Your task to perform on an android device: clear all cookies in the chrome app Image 0: 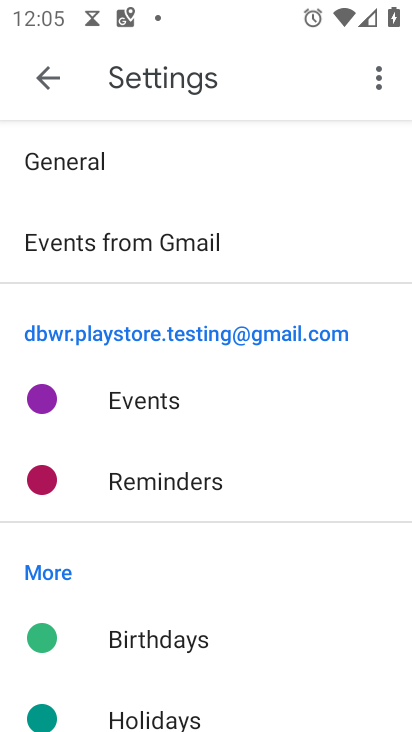
Step 0: press home button
Your task to perform on an android device: clear all cookies in the chrome app Image 1: 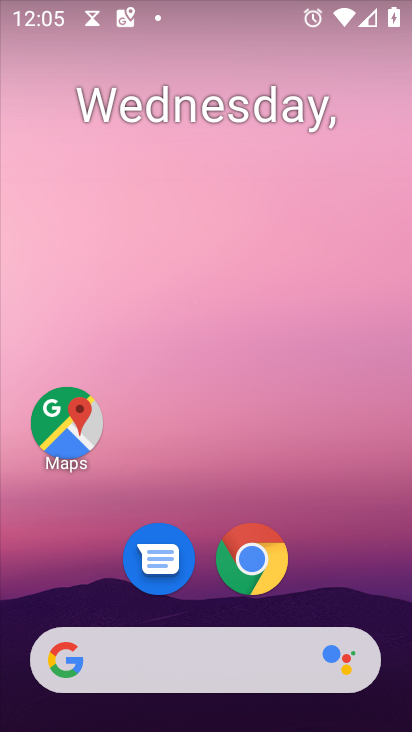
Step 1: drag from (324, 457) to (348, 69)
Your task to perform on an android device: clear all cookies in the chrome app Image 2: 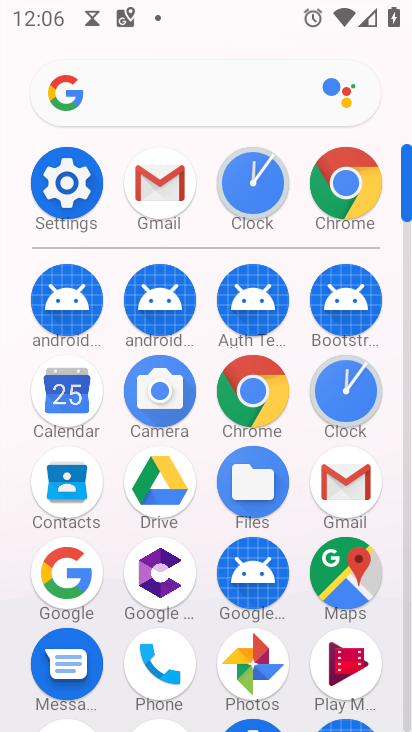
Step 2: click (350, 209)
Your task to perform on an android device: clear all cookies in the chrome app Image 3: 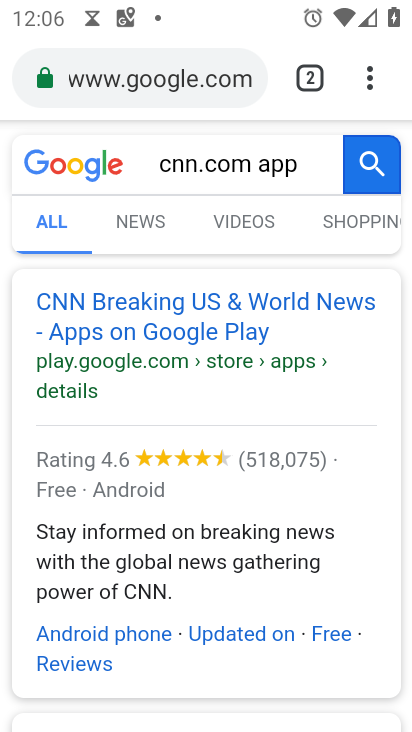
Step 3: drag from (372, 80) to (186, 609)
Your task to perform on an android device: clear all cookies in the chrome app Image 4: 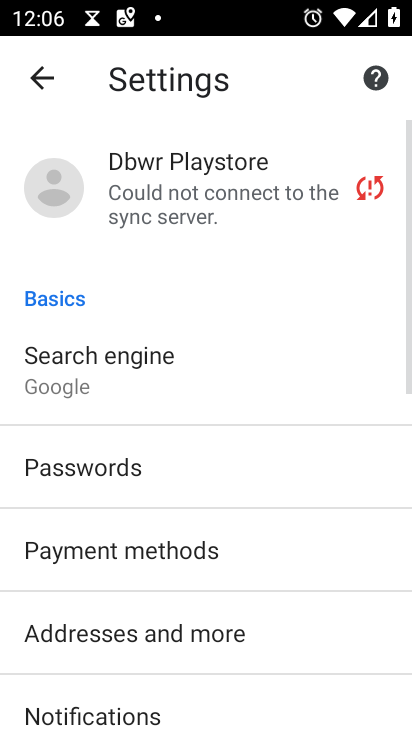
Step 4: drag from (167, 592) to (233, 303)
Your task to perform on an android device: clear all cookies in the chrome app Image 5: 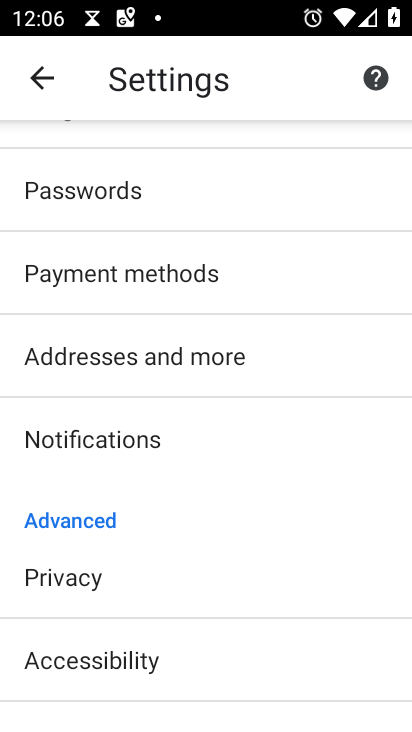
Step 5: drag from (221, 631) to (266, 215)
Your task to perform on an android device: clear all cookies in the chrome app Image 6: 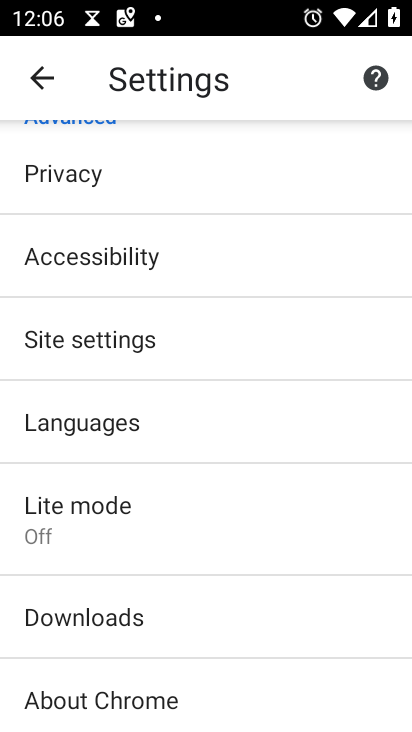
Step 6: click (200, 331)
Your task to perform on an android device: clear all cookies in the chrome app Image 7: 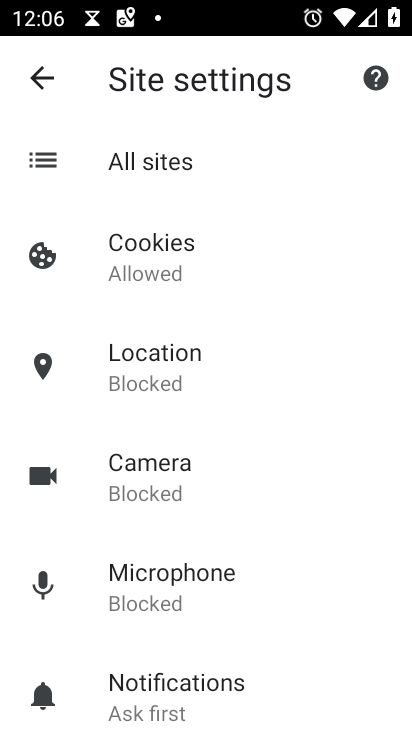
Step 7: click (154, 242)
Your task to perform on an android device: clear all cookies in the chrome app Image 8: 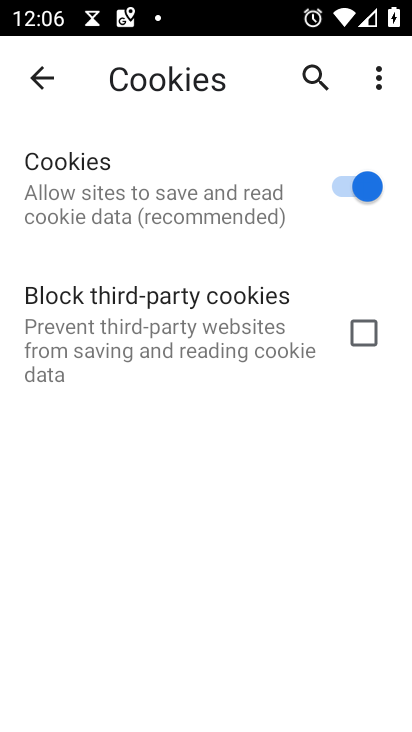
Step 8: click (34, 84)
Your task to perform on an android device: clear all cookies in the chrome app Image 9: 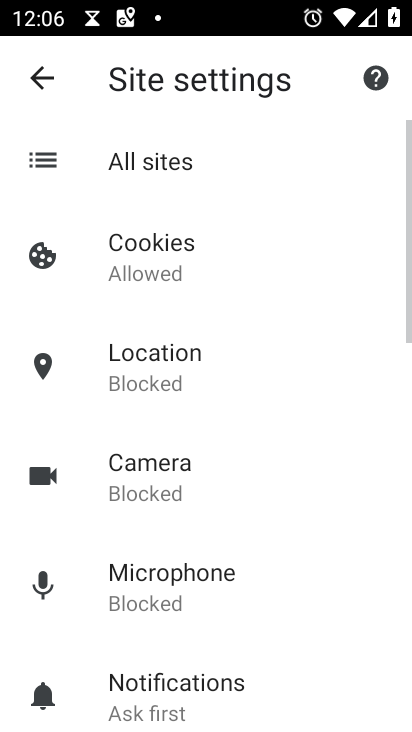
Step 9: click (34, 85)
Your task to perform on an android device: clear all cookies in the chrome app Image 10: 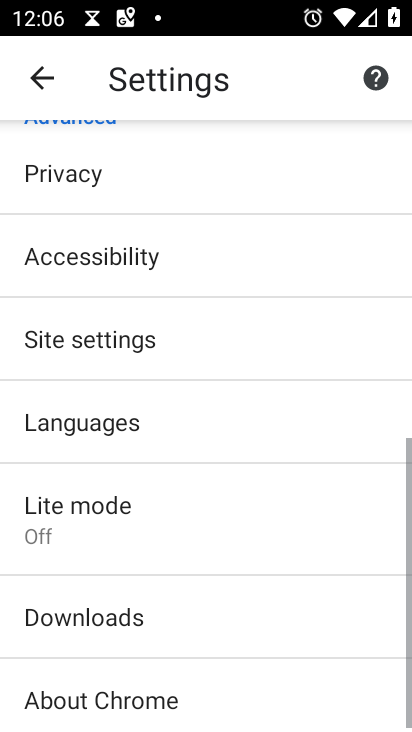
Step 10: click (34, 85)
Your task to perform on an android device: clear all cookies in the chrome app Image 11: 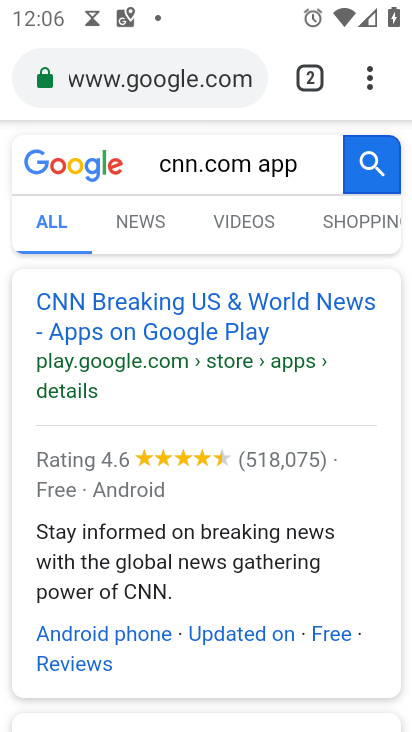
Step 11: drag from (372, 87) to (112, 447)
Your task to perform on an android device: clear all cookies in the chrome app Image 12: 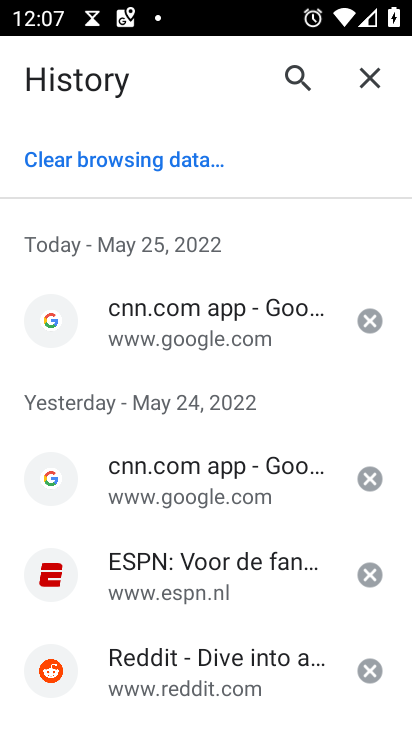
Step 12: click (126, 152)
Your task to perform on an android device: clear all cookies in the chrome app Image 13: 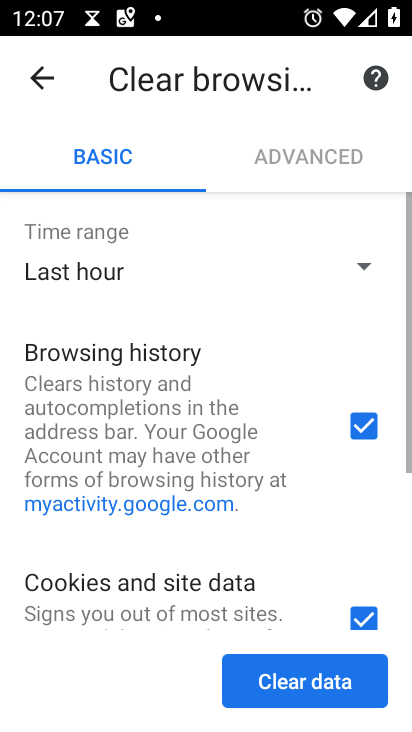
Step 13: click (341, 681)
Your task to perform on an android device: clear all cookies in the chrome app Image 14: 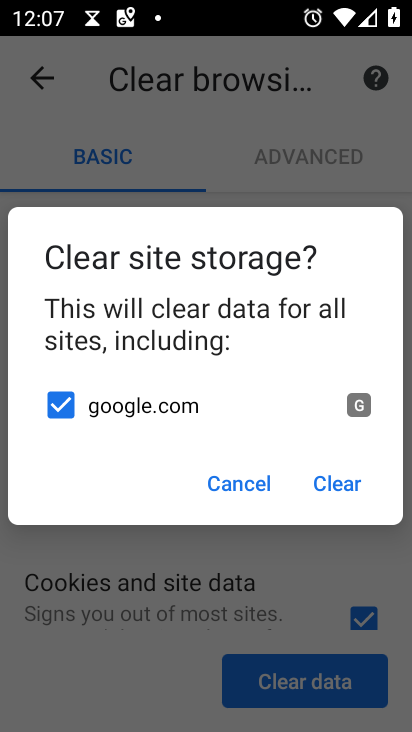
Step 14: click (340, 485)
Your task to perform on an android device: clear all cookies in the chrome app Image 15: 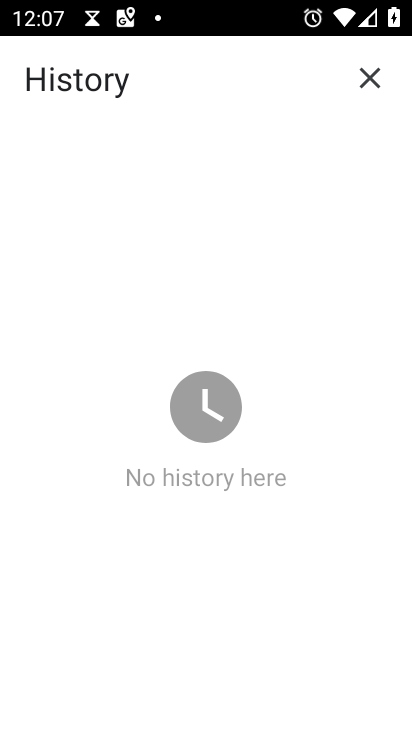
Step 15: task complete